Your task to perform on an android device: Open the map Image 0: 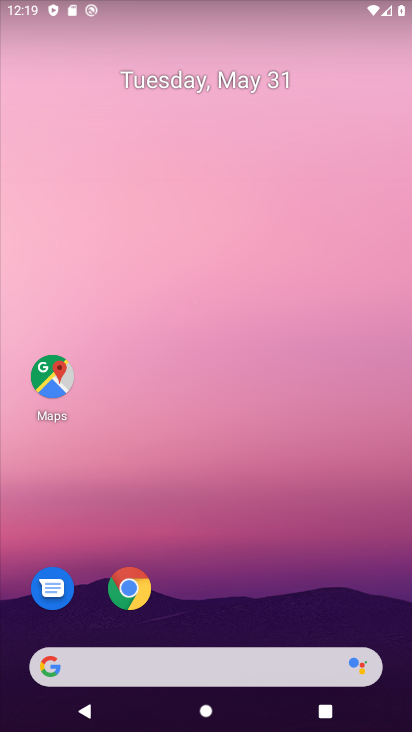
Step 0: click (64, 366)
Your task to perform on an android device: Open the map Image 1: 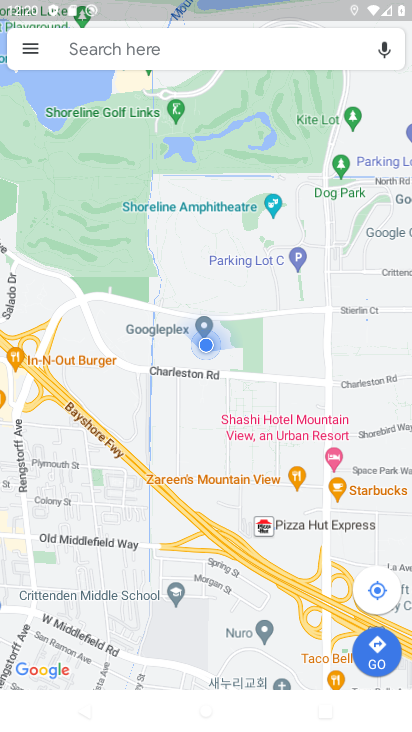
Step 1: task complete